Your task to perform on an android device: open a new tab in the chrome app Image 0: 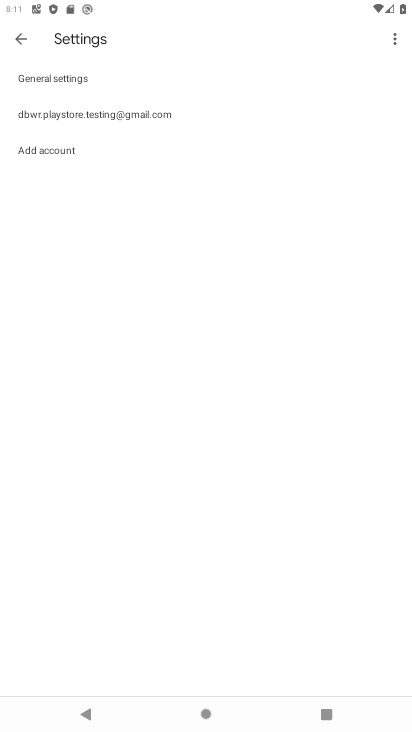
Step 0: press home button
Your task to perform on an android device: open a new tab in the chrome app Image 1: 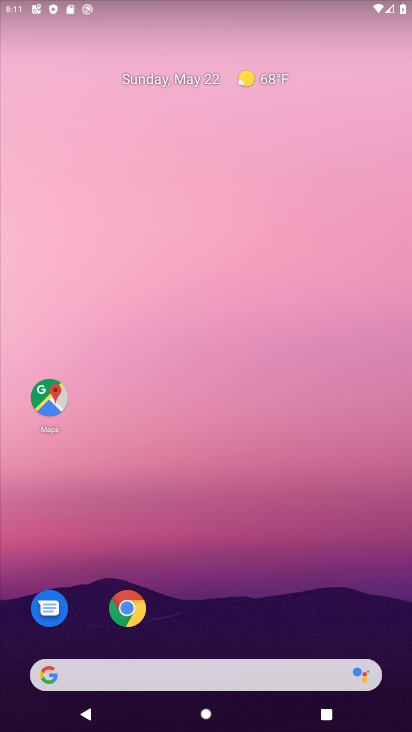
Step 1: click (129, 612)
Your task to perform on an android device: open a new tab in the chrome app Image 2: 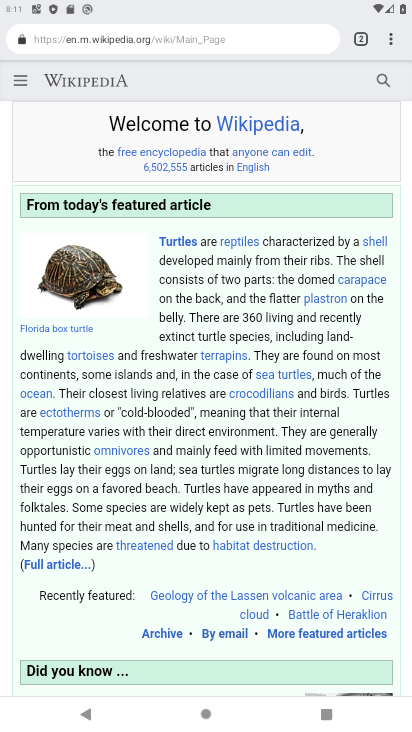
Step 2: click (392, 43)
Your task to perform on an android device: open a new tab in the chrome app Image 3: 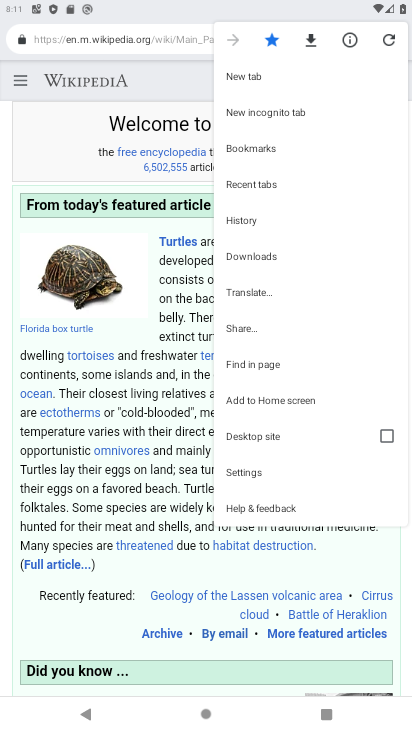
Step 3: click (244, 76)
Your task to perform on an android device: open a new tab in the chrome app Image 4: 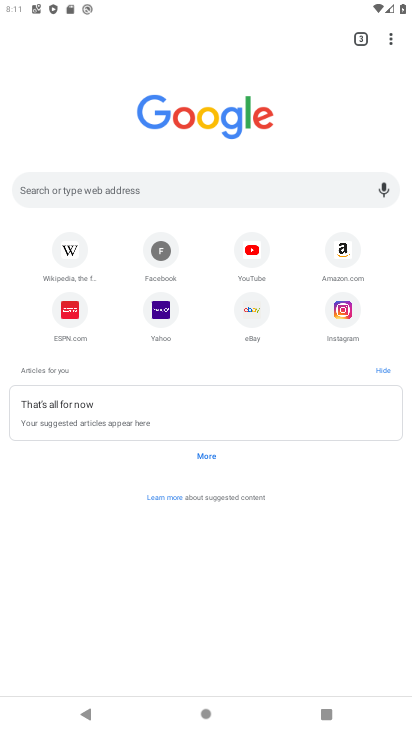
Step 4: task complete